Your task to perform on an android device: Search for vegetarian restaurants on Maps Image 0: 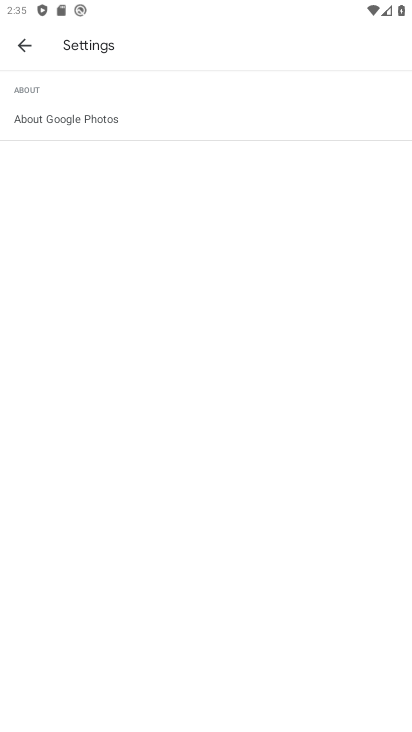
Step 0: press home button
Your task to perform on an android device: Search for vegetarian restaurants on Maps Image 1: 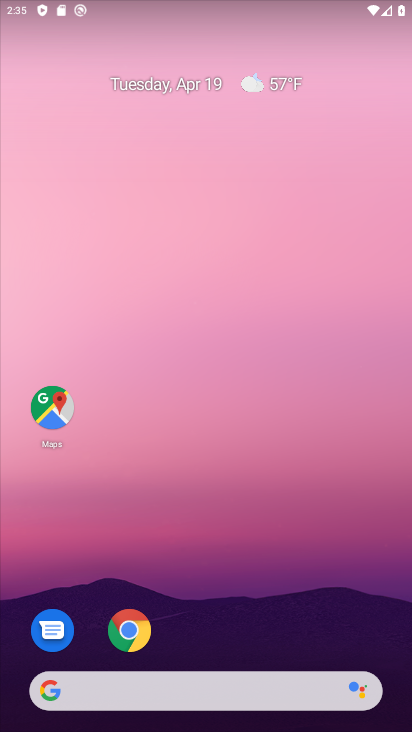
Step 1: click (53, 428)
Your task to perform on an android device: Search for vegetarian restaurants on Maps Image 2: 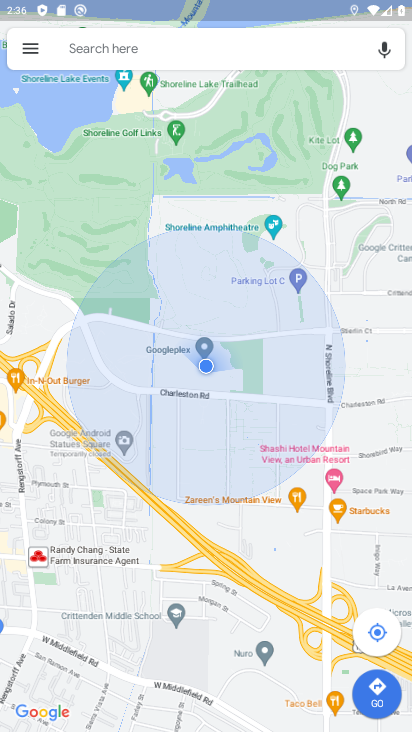
Step 2: click (147, 35)
Your task to perform on an android device: Search for vegetarian restaurants on Maps Image 3: 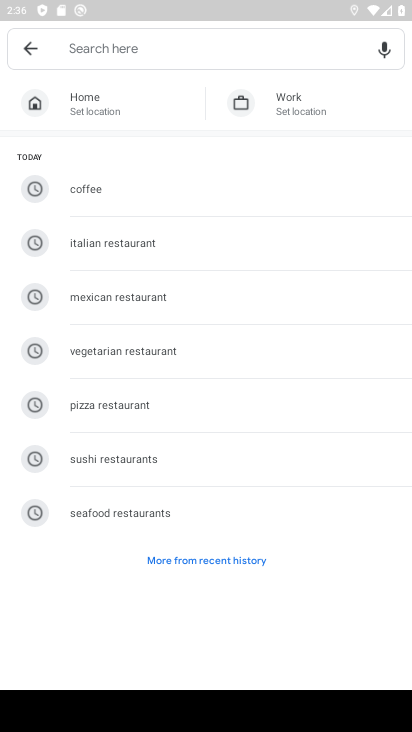
Step 3: type "vegetarian restaurants"
Your task to perform on an android device: Search for vegetarian restaurants on Maps Image 4: 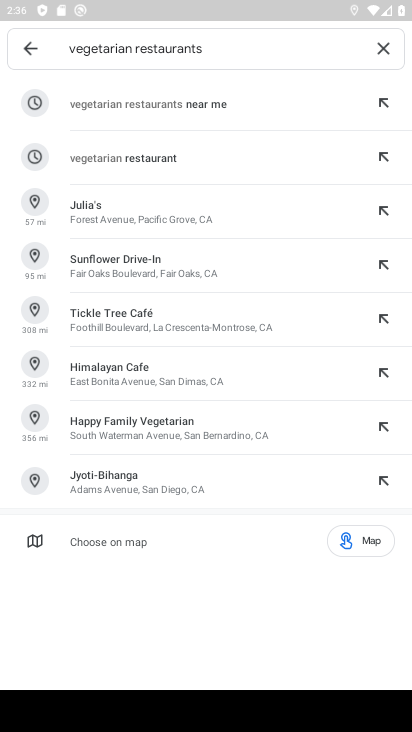
Step 4: click (209, 165)
Your task to perform on an android device: Search for vegetarian restaurants on Maps Image 5: 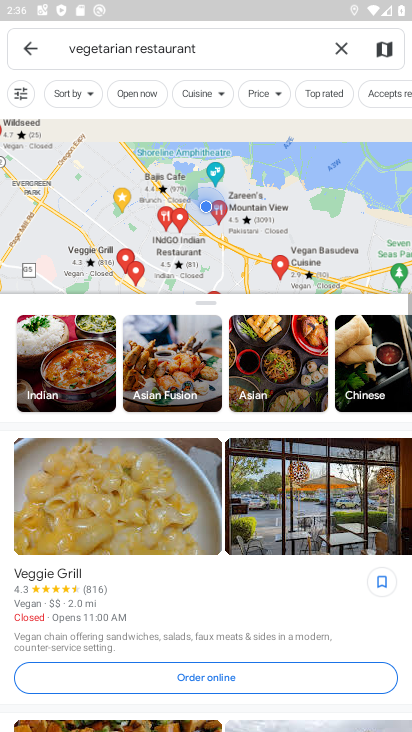
Step 5: task complete